Your task to perform on an android device: remove spam from my inbox in the gmail app Image 0: 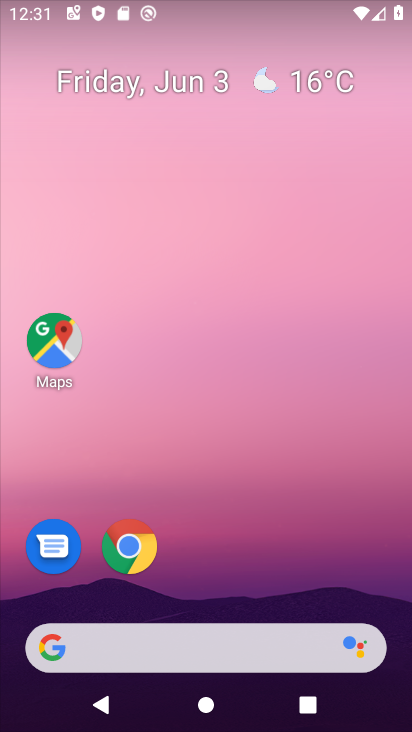
Step 0: drag from (274, 550) to (177, 149)
Your task to perform on an android device: remove spam from my inbox in the gmail app Image 1: 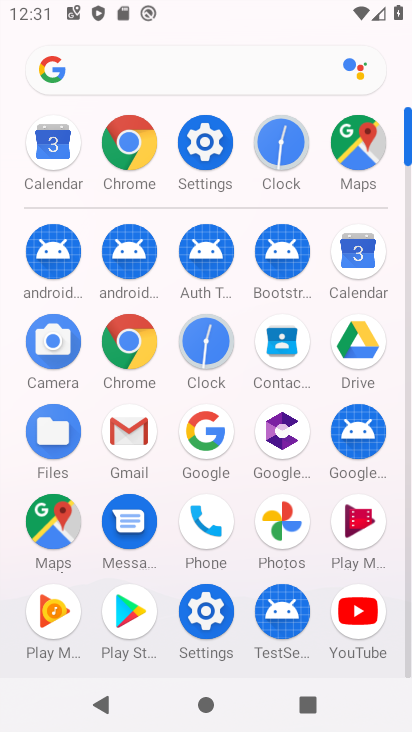
Step 1: click (128, 432)
Your task to perform on an android device: remove spam from my inbox in the gmail app Image 2: 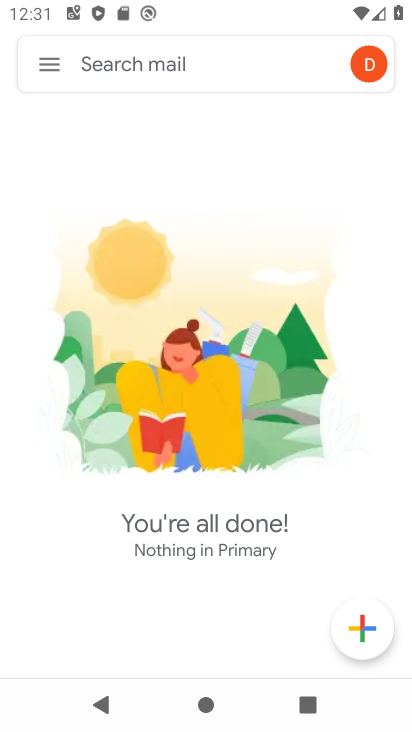
Step 2: click (45, 68)
Your task to perform on an android device: remove spam from my inbox in the gmail app Image 3: 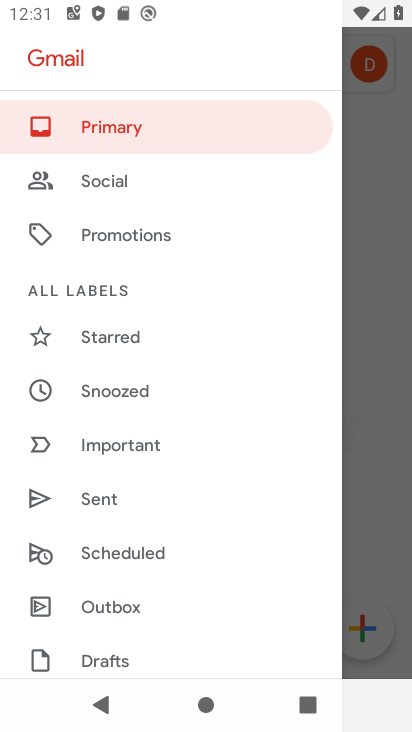
Step 3: drag from (169, 601) to (141, 286)
Your task to perform on an android device: remove spam from my inbox in the gmail app Image 4: 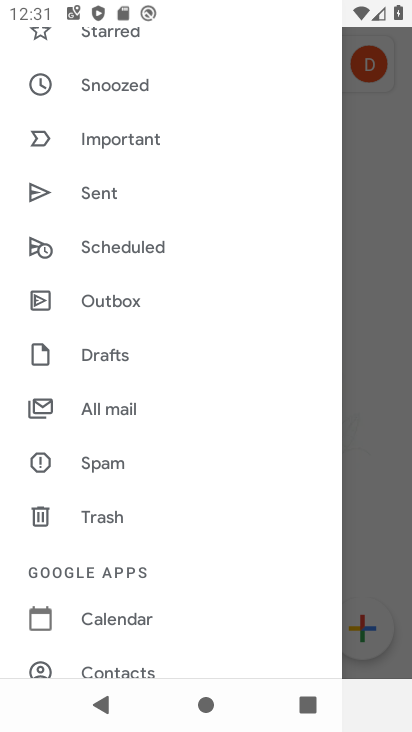
Step 4: click (112, 462)
Your task to perform on an android device: remove spam from my inbox in the gmail app Image 5: 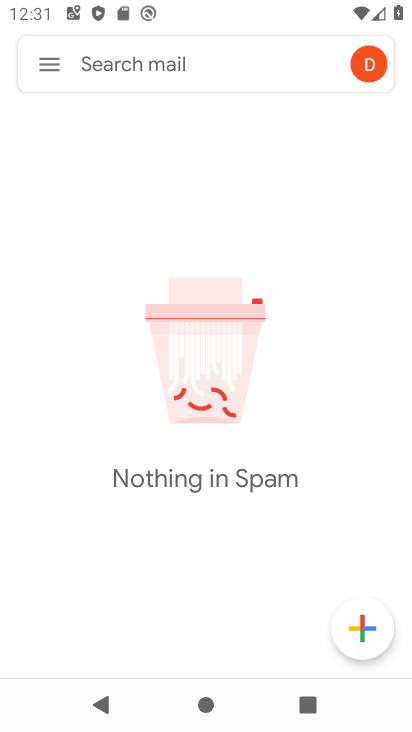
Step 5: task complete